Your task to perform on an android device: toggle location history Image 0: 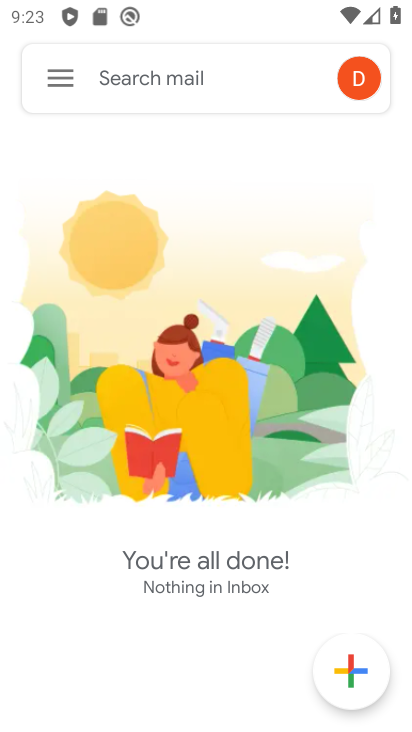
Step 0: press home button
Your task to perform on an android device: toggle location history Image 1: 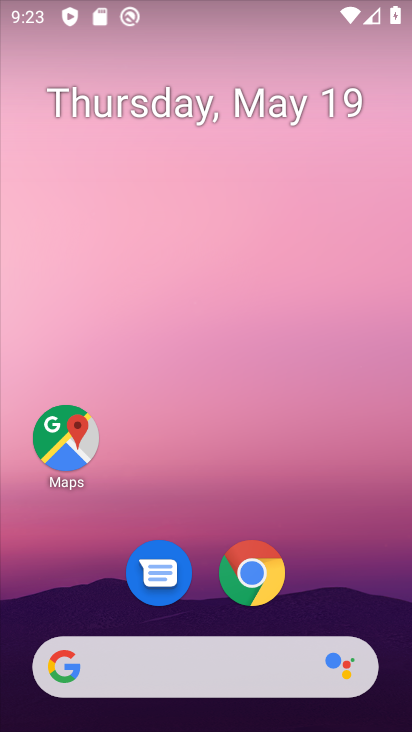
Step 1: drag from (227, 617) to (275, 211)
Your task to perform on an android device: toggle location history Image 2: 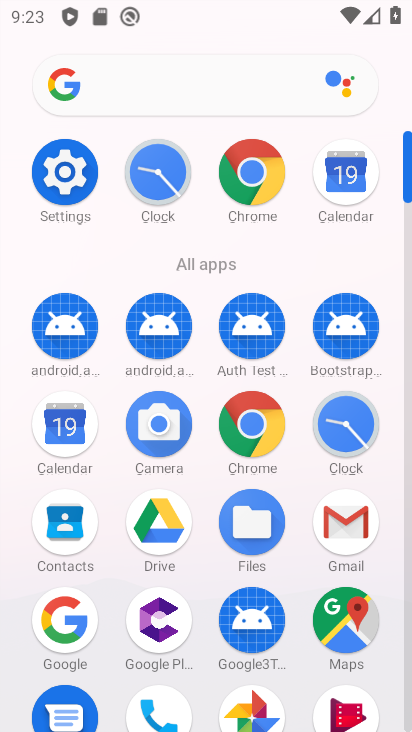
Step 2: click (67, 177)
Your task to perform on an android device: toggle location history Image 3: 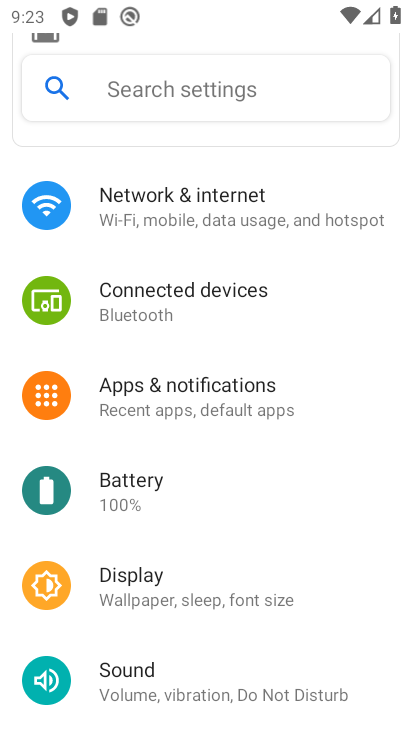
Step 3: drag from (257, 658) to (278, 328)
Your task to perform on an android device: toggle location history Image 4: 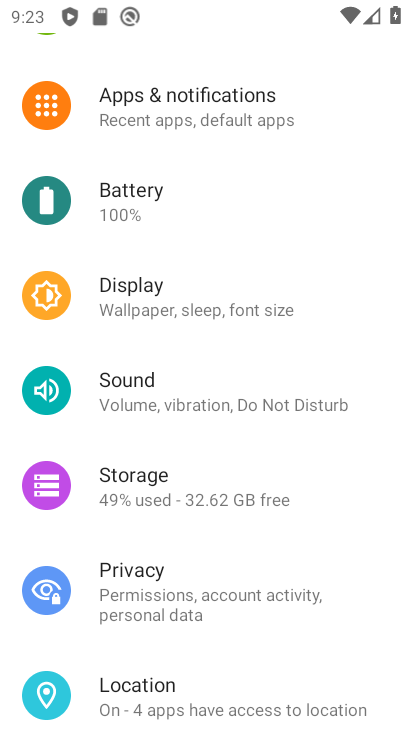
Step 4: drag from (258, 598) to (260, 332)
Your task to perform on an android device: toggle location history Image 5: 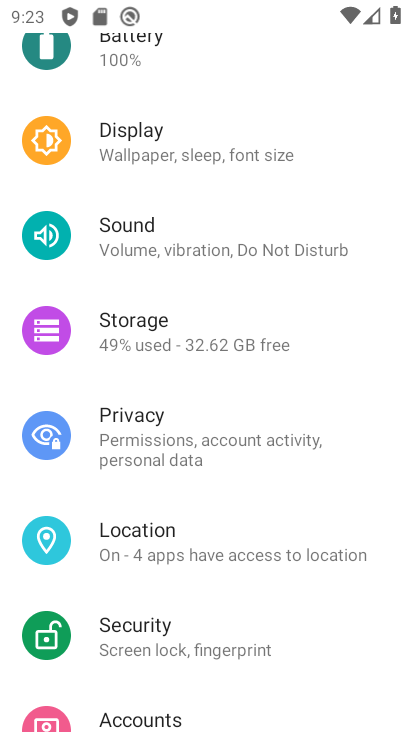
Step 5: click (216, 529)
Your task to perform on an android device: toggle location history Image 6: 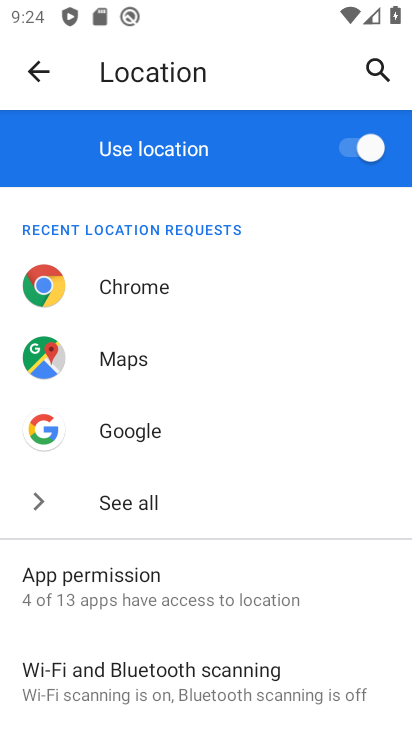
Step 6: drag from (234, 637) to (266, 331)
Your task to perform on an android device: toggle location history Image 7: 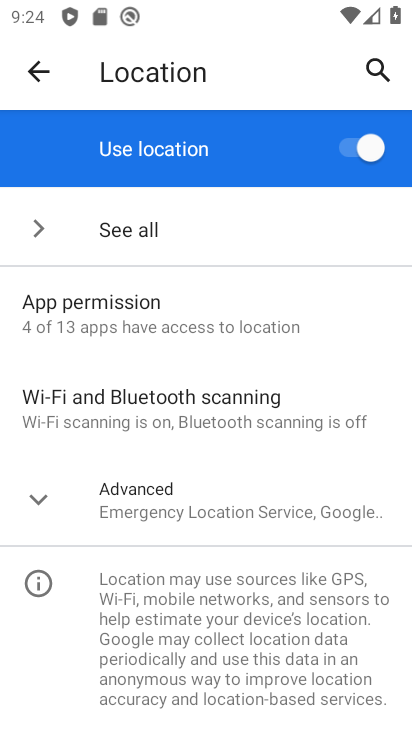
Step 7: click (146, 511)
Your task to perform on an android device: toggle location history Image 8: 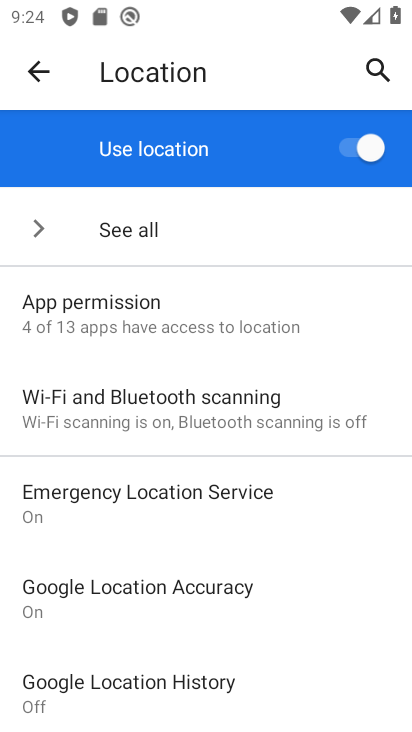
Step 8: click (202, 679)
Your task to perform on an android device: toggle location history Image 9: 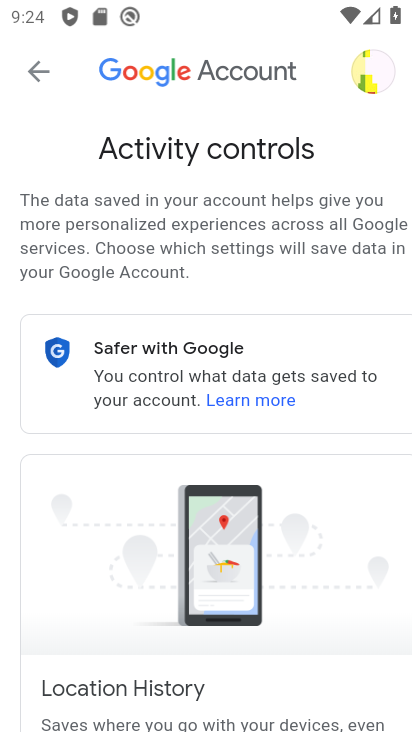
Step 9: drag from (254, 693) to (266, 343)
Your task to perform on an android device: toggle location history Image 10: 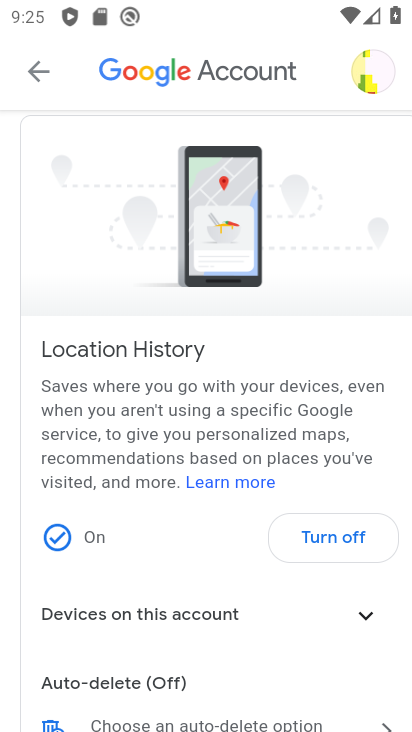
Step 10: click (307, 534)
Your task to perform on an android device: toggle location history Image 11: 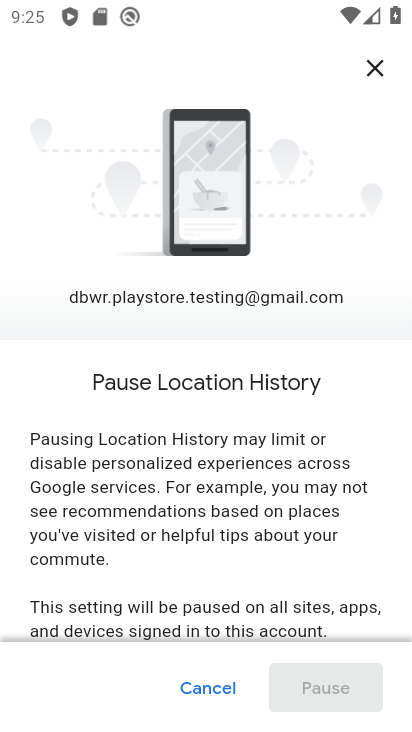
Step 11: drag from (309, 615) to (306, 269)
Your task to perform on an android device: toggle location history Image 12: 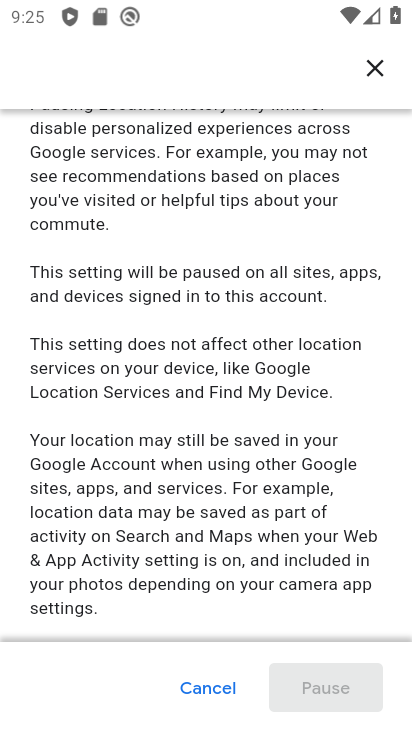
Step 12: drag from (289, 587) to (319, 290)
Your task to perform on an android device: toggle location history Image 13: 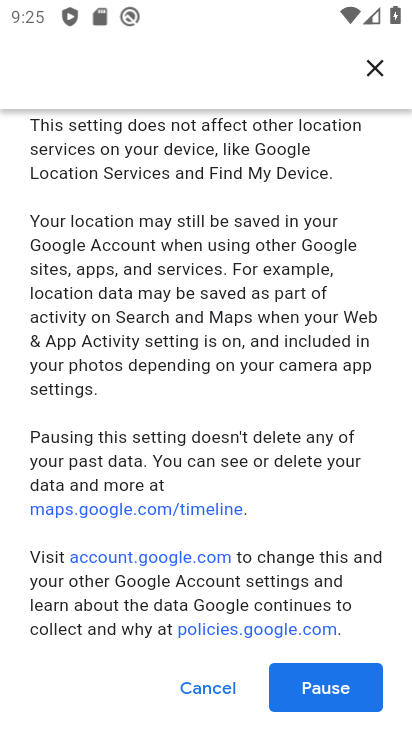
Step 13: click (317, 671)
Your task to perform on an android device: toggle location history Image 14: 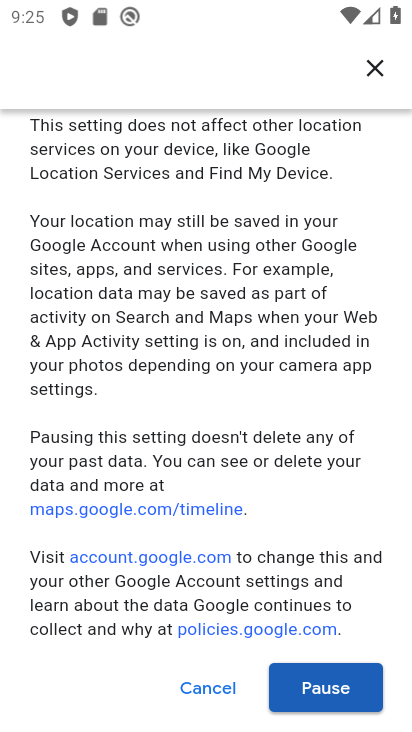
Step 14: click (325, 690)
Your task to perform on an android device: toggle location history Image 15: 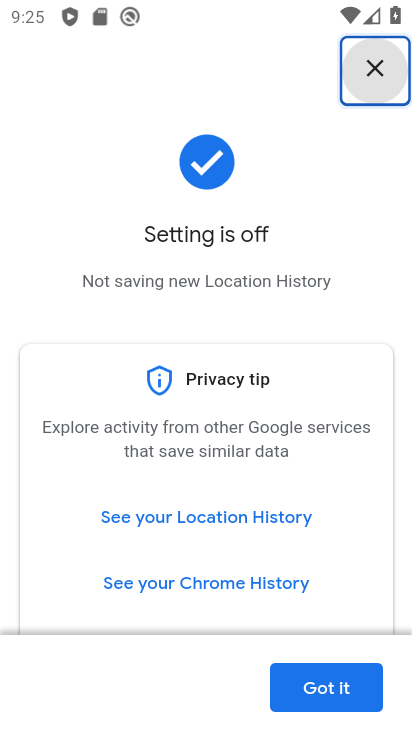
Step 15: task complete